Your task to perform on an android device: all mails in gmail Image 0: 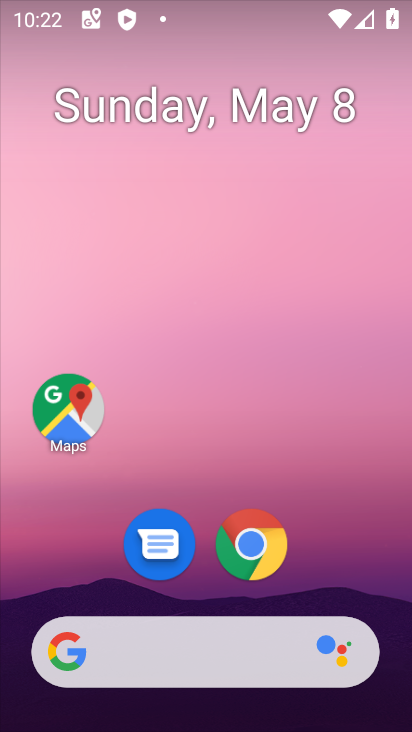
Step 0: drag from (389, 563) to (370, 157)
Your task to perform on an android device: all mails in gmail Image 1: 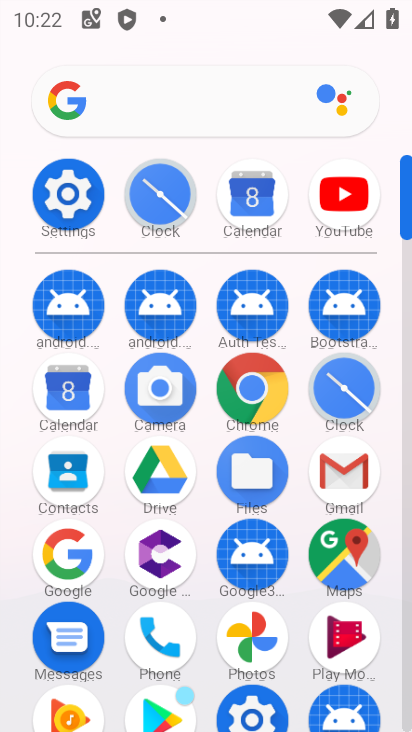
Step 1: click (339, 497)
Your task to perform on an android device: all mails in gmail Image 2: 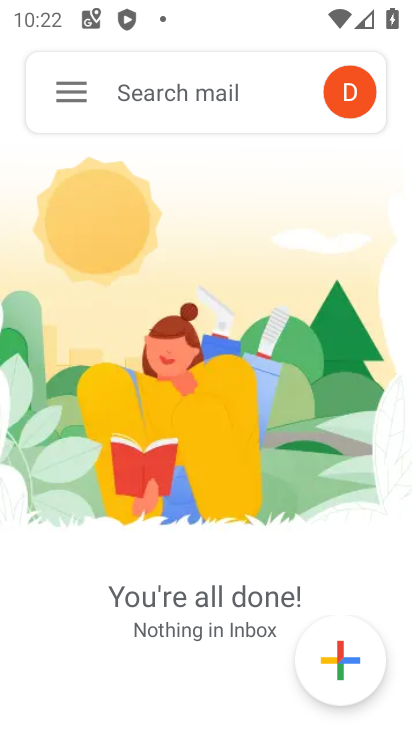
Step 2: click (96, 85)
Your task to perform on an android device: all mails in gmail Image 3: 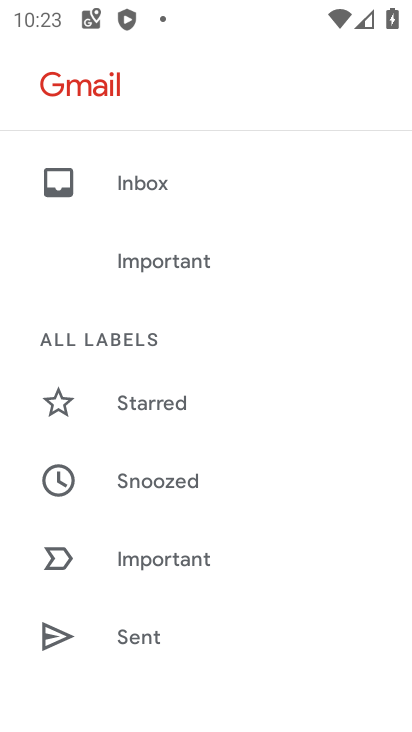
Step 3: drag from (244, 549) to (262, 326)
Your task to perform on an android device: all mails in gmail Image 4: 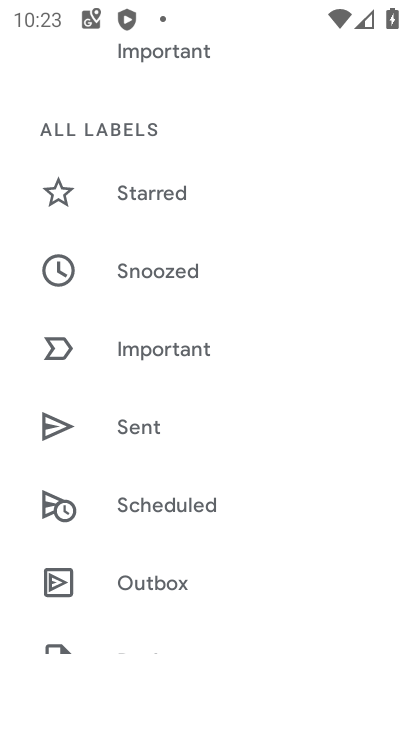
Step 4: drag from (230, 608) to (215, 443)
Your task to perform on an android device: all mails in gmail Image 5: 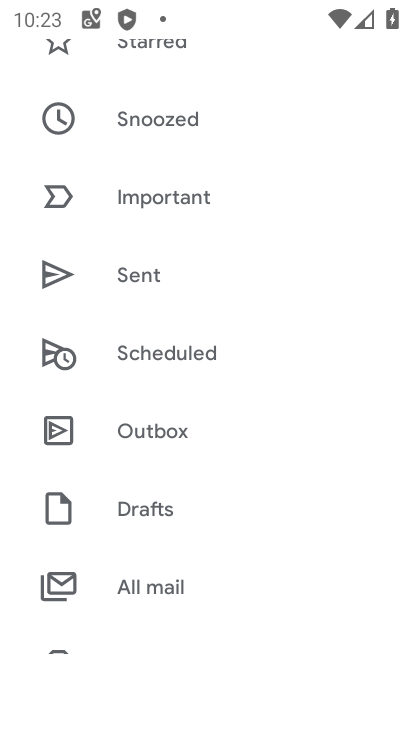
Step 5: click (203, 572)
Your task to perform on an android device: all mails in gmail Image 6: 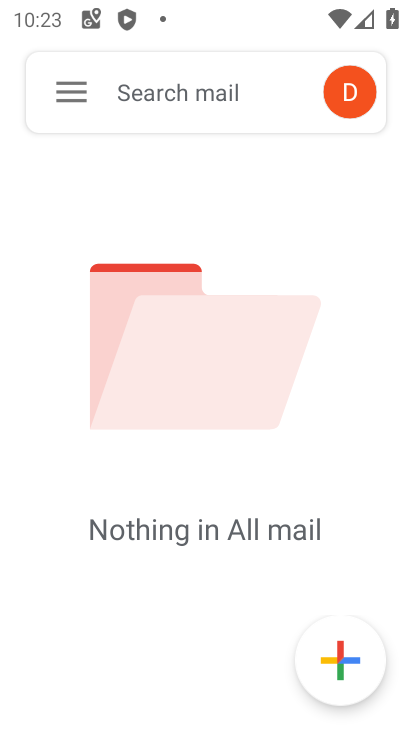
Step 6: task complete